Your task to perform on an android device: Open network settings Image 0: 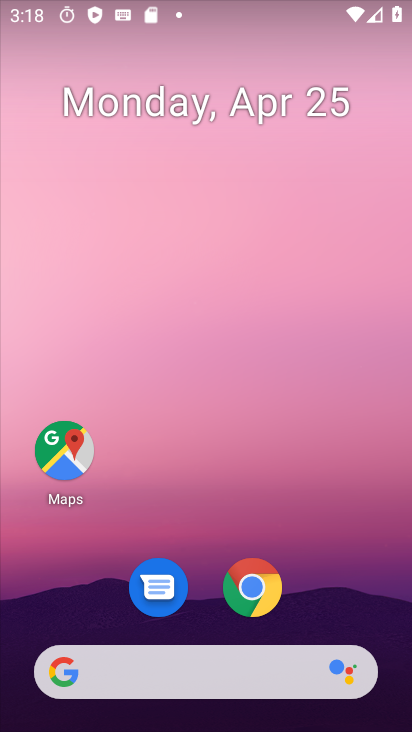
Step 0: drag from (353, 573) to (320, 116)
Your task to perform on an android device: Open network settings Image 1: 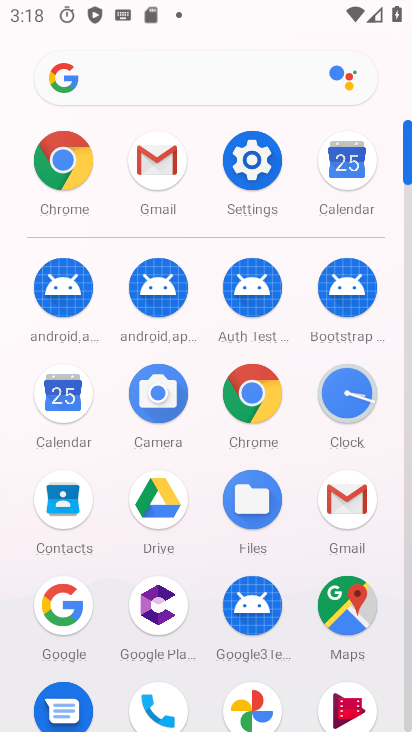
Step 1: click (261, 158)
Your task to perform on an android device: Open network settings Image 2: 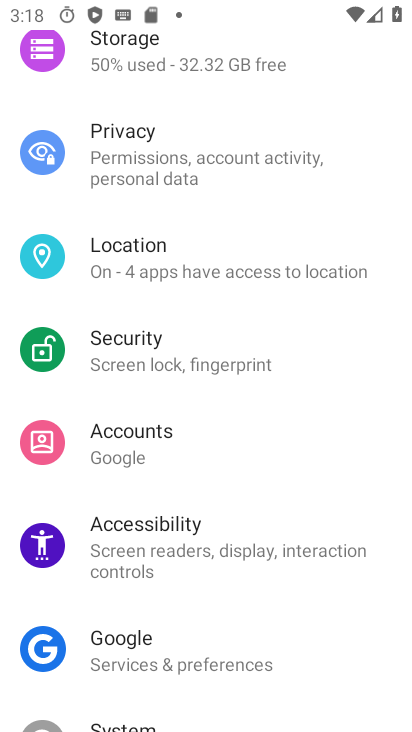
Step 2: drag from (213, 135) to (199, 727)
Your task to perform on an android device: Open network settings Image 3: 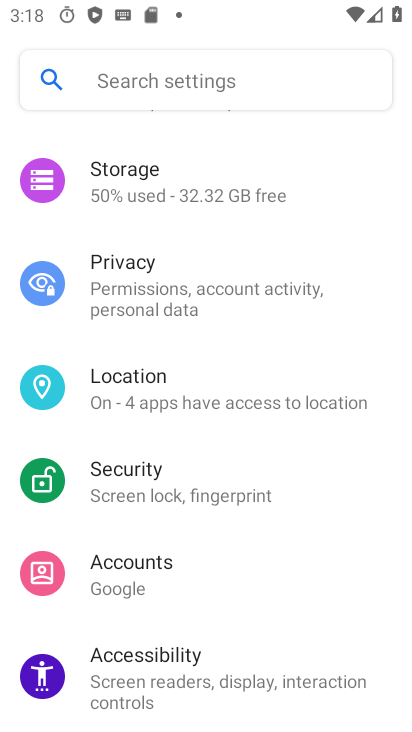
Step 3: drag from (223, 543) to (280, 146)
Your task to perform on an android device: Open network settings Image 4: 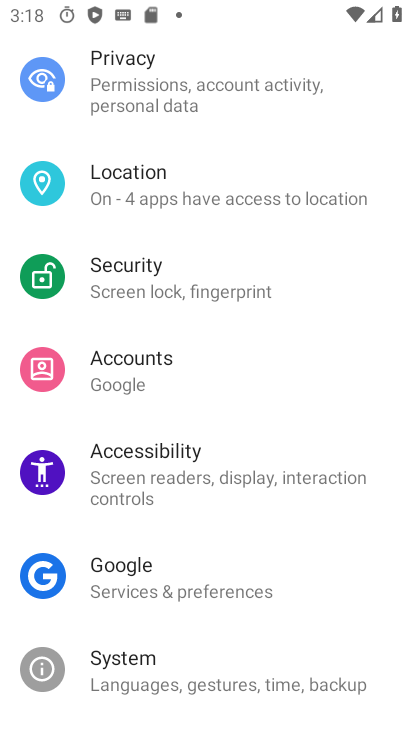
Step 4: drag from (227, 175) to (208, 659)
Your task to perform on an android device: Open network settings Image 5: 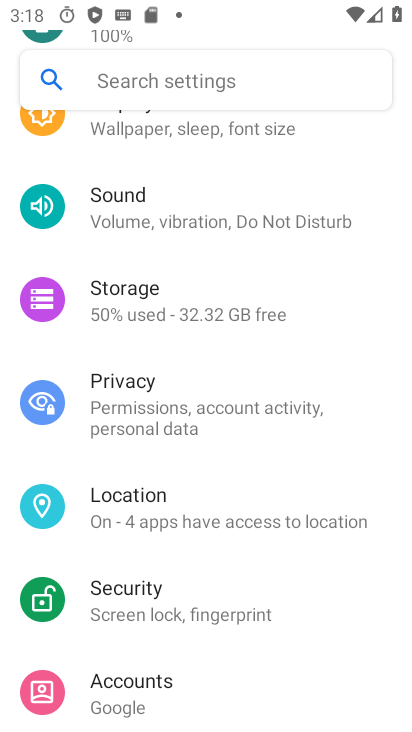
Step 5: drag from (193, 194) to (263, 731)
Your task to perform on an android device: Open network settings Image 6: 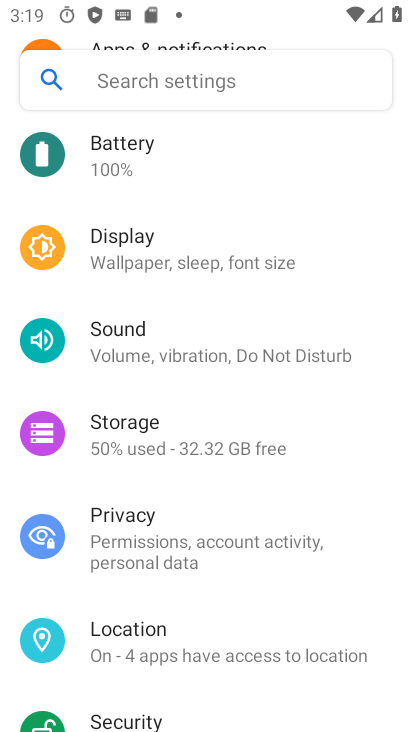
Step 6: drag from (233, 277) to (261, 661)
Your task to perform on an android device: Open network settings Image 7: 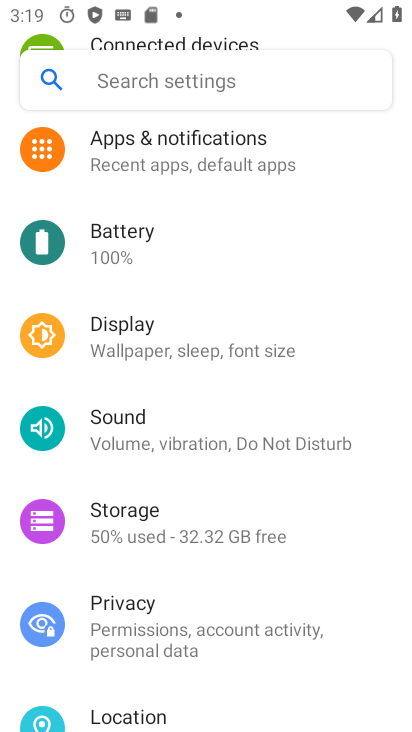
Step 7: drag from (229, 160) to (257, 676)
Your task to perform on an android device: Open network settings Image 8: 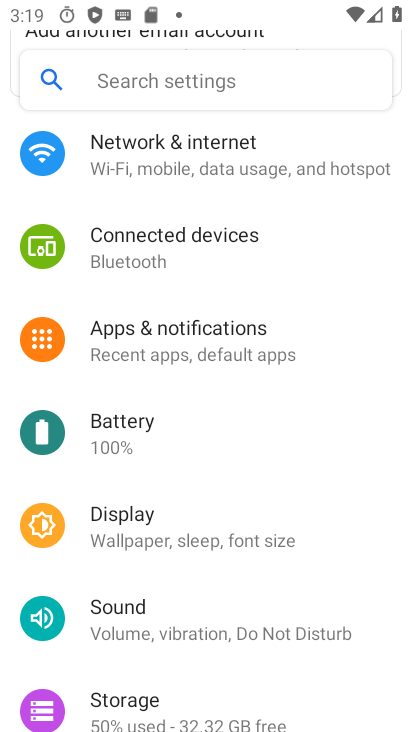
Step 8: click (213, 150)
Your task to perform on an android device: Open network settings Image 9: 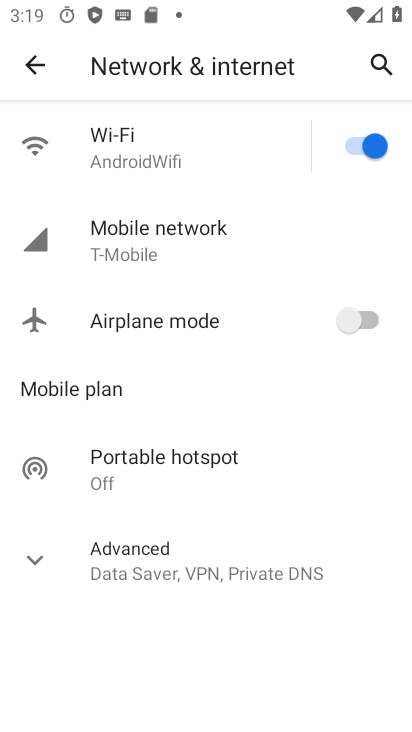
Step 9: task complete